Your task to perform on an android device: choose inbox layout in the gmail app Image 0: 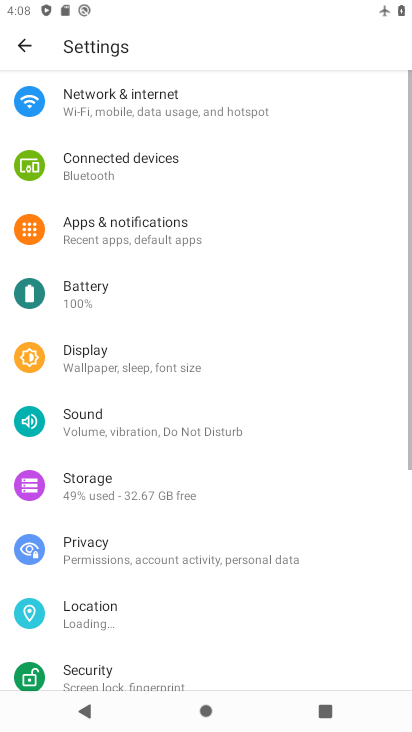
Step 0: press home button
Your task to perform on an android device: choose inbox layout in the gmail app Image 1: 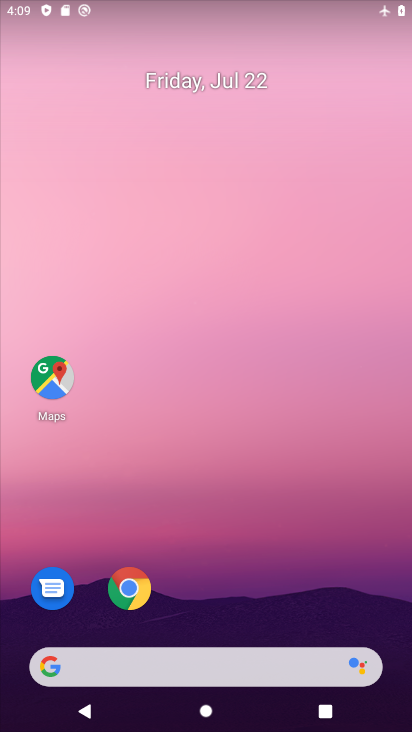
Step 1: drag from (235, 625) to (228, 68)
Your task to perform on an android device: choose inbox layout in the gmail app Image 2: 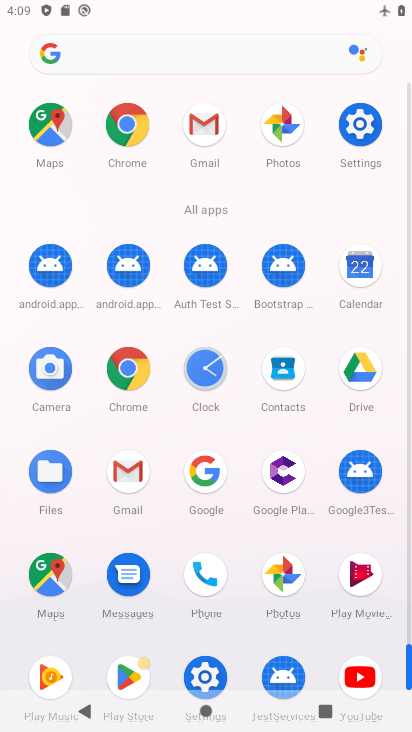
Step 2: click (207, 132)
Your task to perform on an android device: choose inbox layout in the gmail app Image 3: 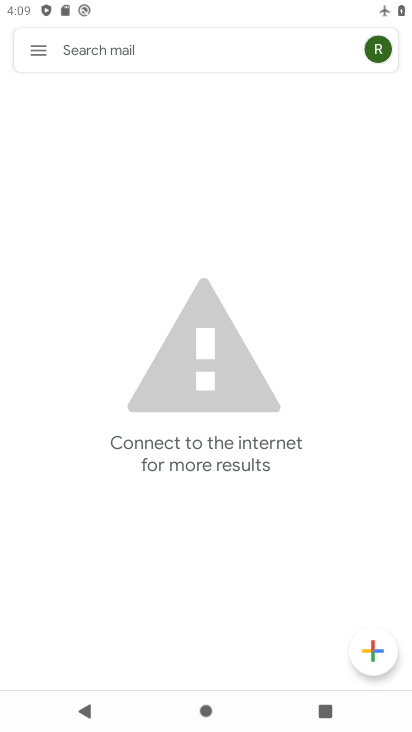
Step 3: click (24, 53)
Your task to perform on an android device: choose inbox layout in the gmail app Image 4: 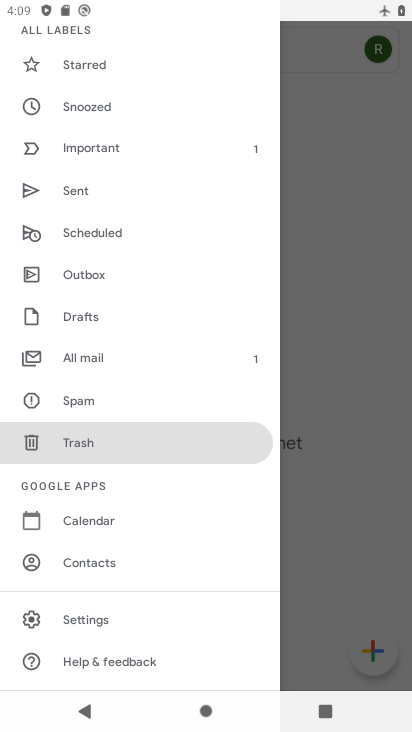
Step 4: click (105, 621)
Your task to perform on an android device: choose inbox layout in the gmail app Image 5: 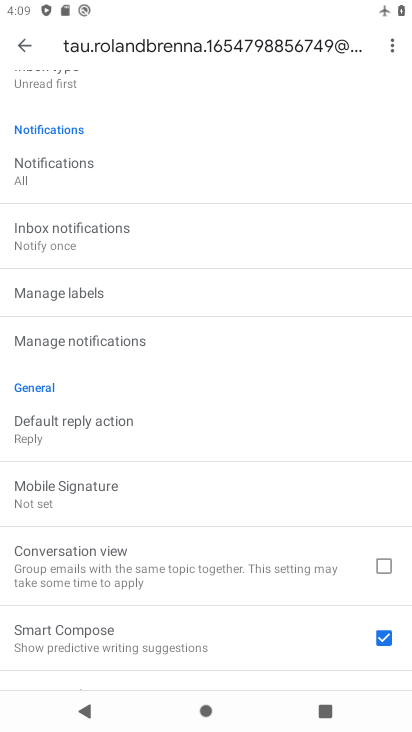
Step 5: drag from (149, 179) to (126, 572)
Your task to perform on an android device: choose inbox layout in the gmail app Image 6: 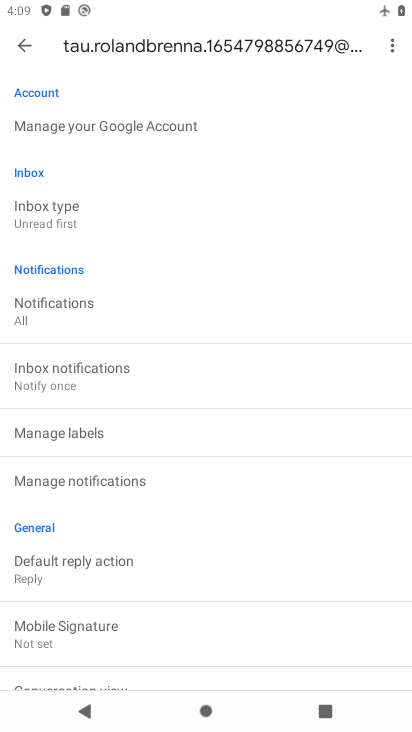
Step 6: click (93, 219)
Your task to perform on an android device: choose inbox layout in the gmail app Image 7: 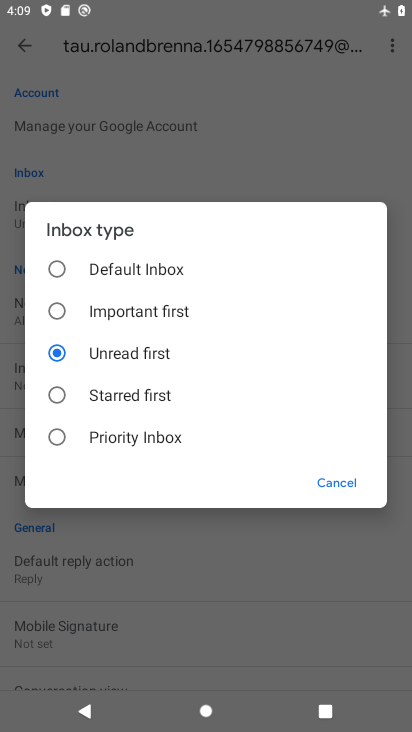
Step 7: click (140, 270)
Your task to perform on an android device: choose inbox layout in the gmail app Image 8: 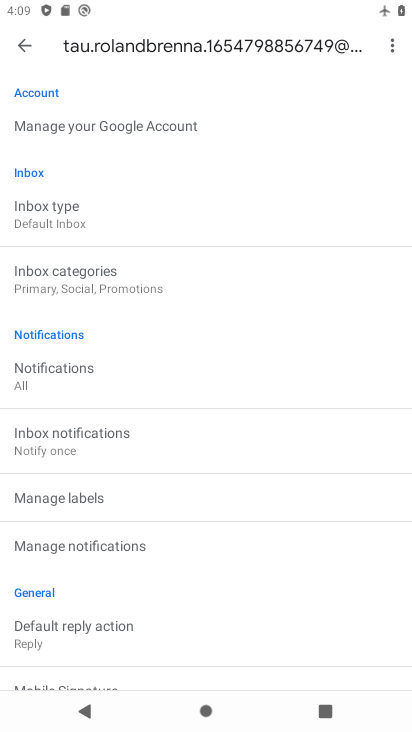
Step 8: task complete